Your task to perform on an android device: check battery use Image 0: 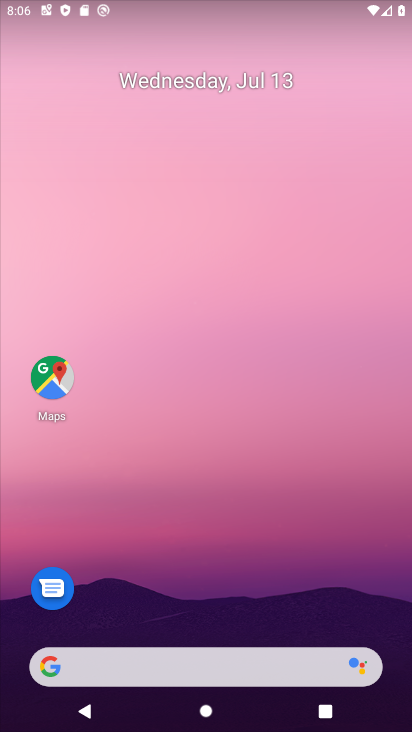
Step 0: drag from (162, 693) to (410, 21)
Your task to perform on an android device: check battery use Image 1: 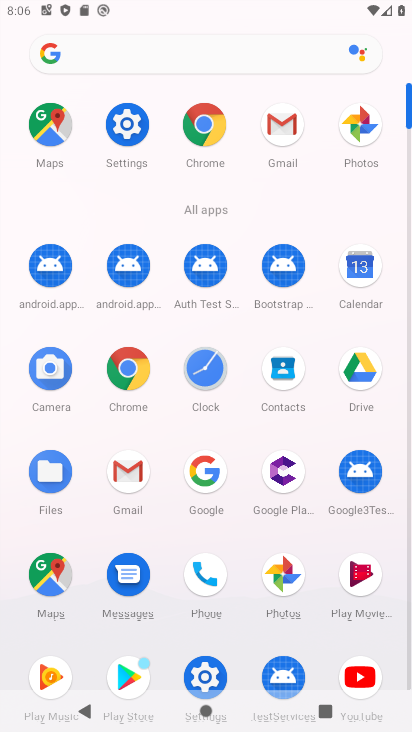
Step 1: click (136, 126)
Your task to perform on an android device: check battery use Image 2: 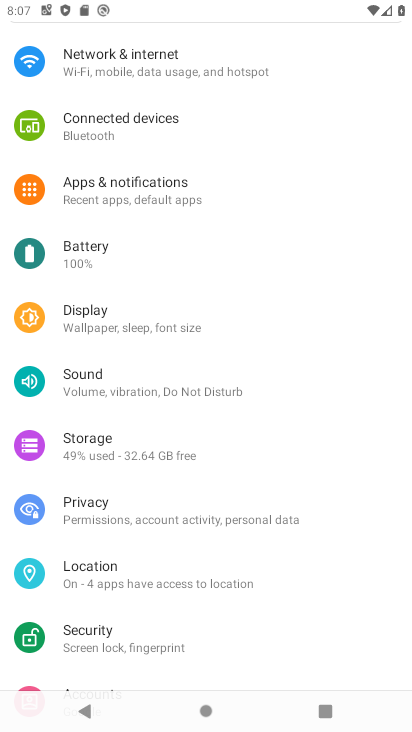
Step 2: click (101, 254)
Your task to perform on an android device: check battery use Image 3: 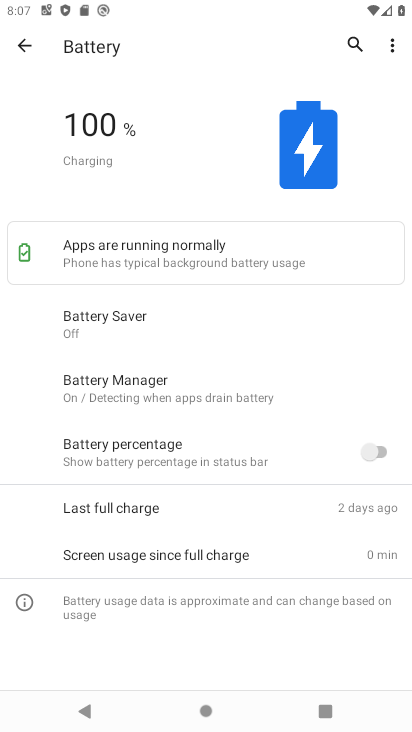
Step 3: task complete